Your task to perform on an android device: change timer sound Image 0: 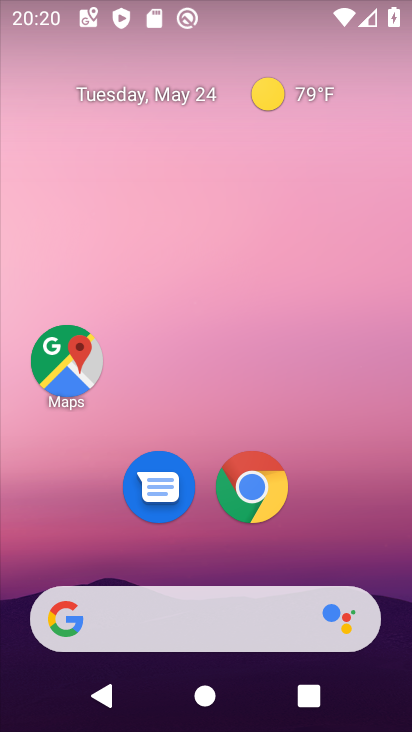
Step 0: drag from (47, 633) to (292, 225)
Your task to perform on an android device: change timer sound Image 1: 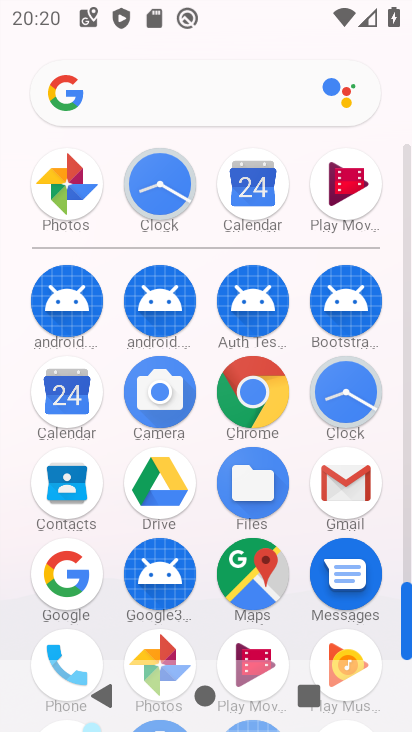
Step 1: click (351, 417)
Your task to perform on an android device: change timer sound Image 2: 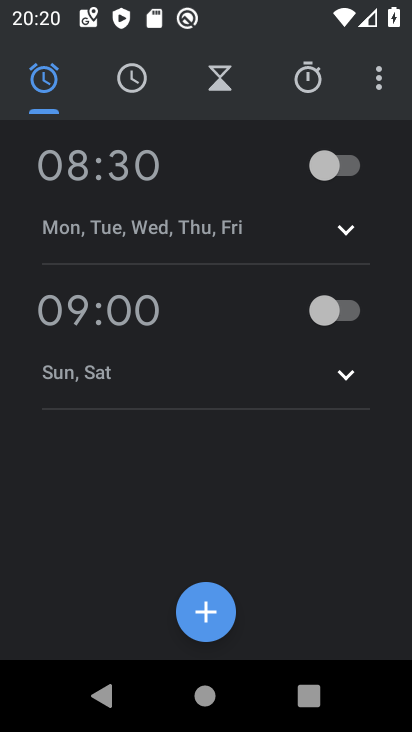
Step 2: click (368, 77)
Your task to perform on an android device: change timer sound Image 3: 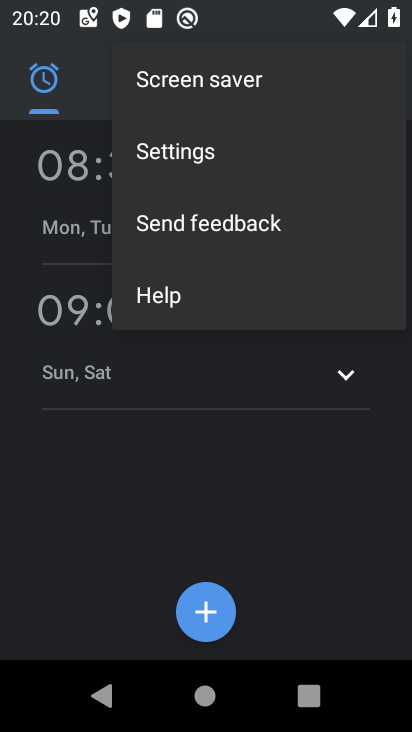
Step 3: click (190, 164)
Your task to perform on an android device: change timer sound Image 4: 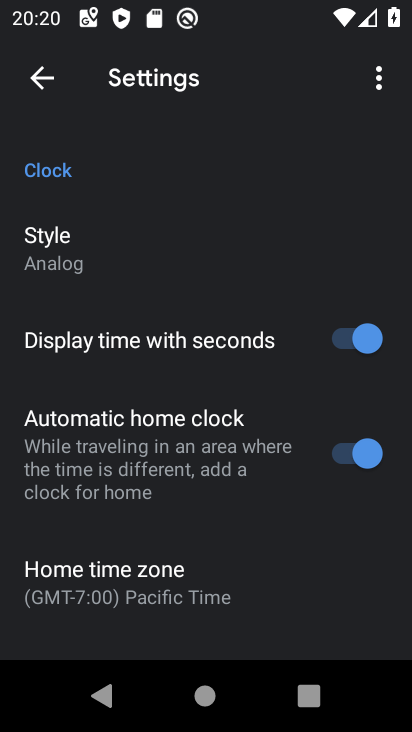
Step 4: drag from (11, 453) to (171, 69)
Your task to perform on an android device: change timer sound Image 5: 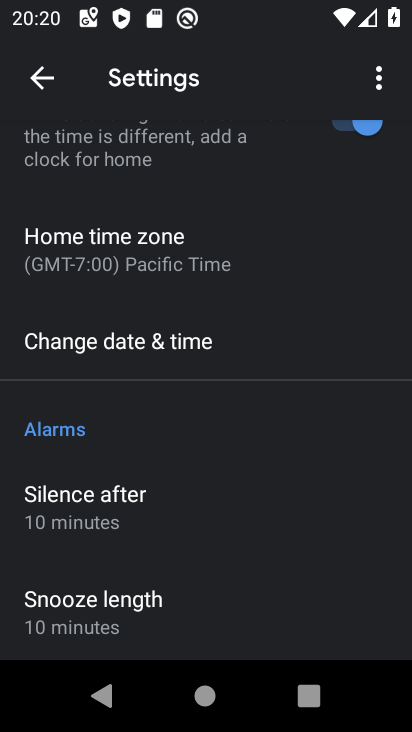
Step 5: drag from (182, 237) to (235, 117)
Your task to perform on an android device: change timer sound Image 6: 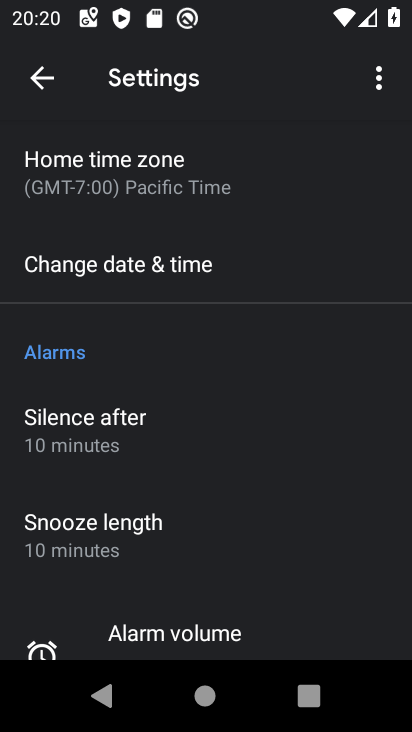
Step 6: drag from (0, 534) to (262, 107)
Your task to perform on an android device: change timer sound Image 7: 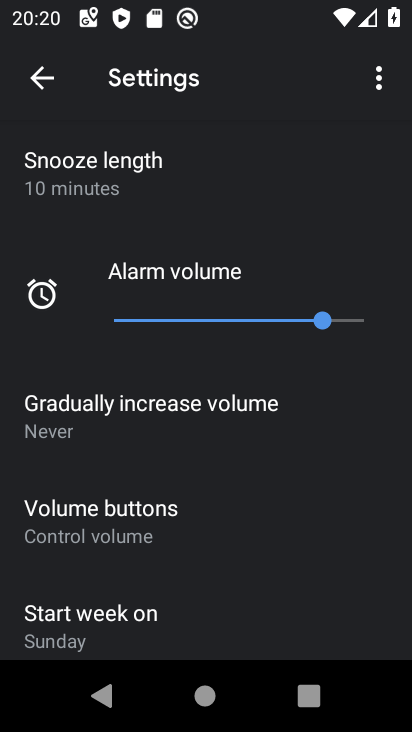
Step 7: drag from (112, 597) to (317, 203)
Your task to perform on an android device: change timer sound Image 8: 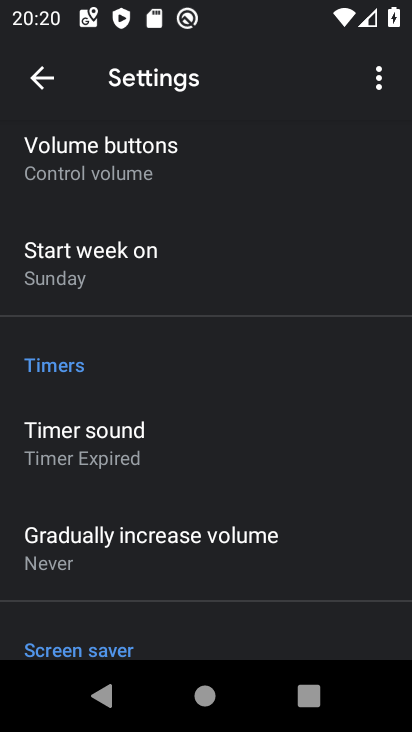
Step 8: click (67, 462)
Your task to perform on an android device: change timer sound Image 9: 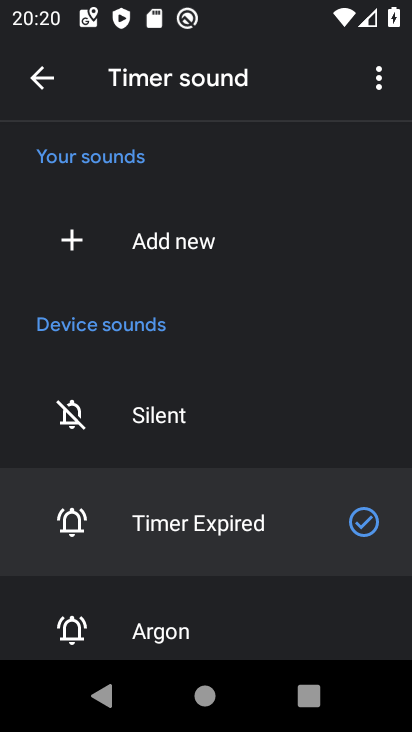
Step 9: click (137, 625)
Your task to perform on an android device: change timer sound Image 10: 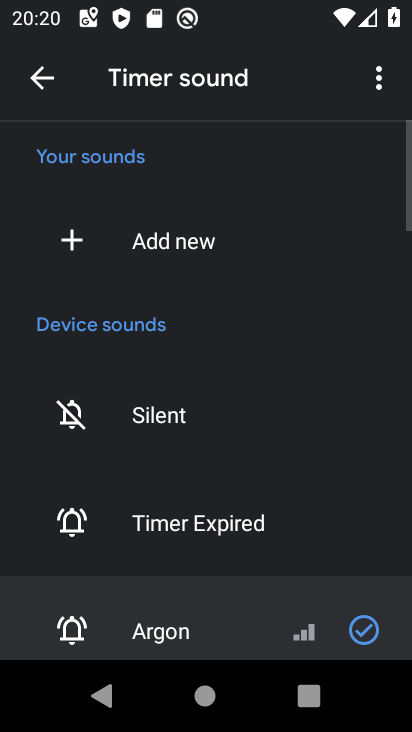
Step 10: task complete